Your task to perform on an android device: toggle translation in the chrome app Image 0: 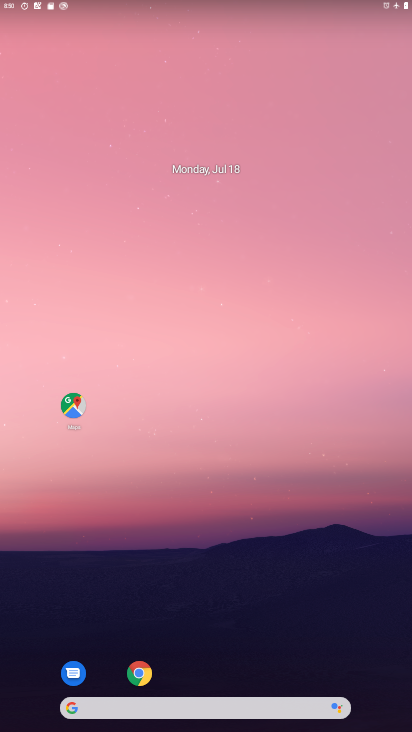
Step 0: click (72, 413)
Your task to perform on an android device: toggle translation in the chrome app Image 1: 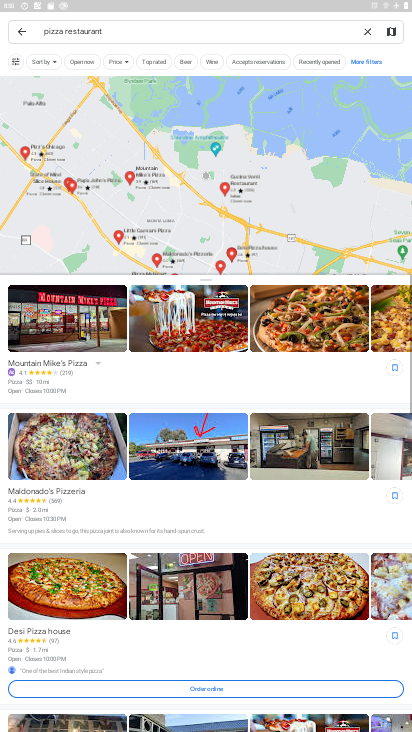
Step 1: press home button
Your task to perform on an android device: toggle translation in the chrome app Image 2: 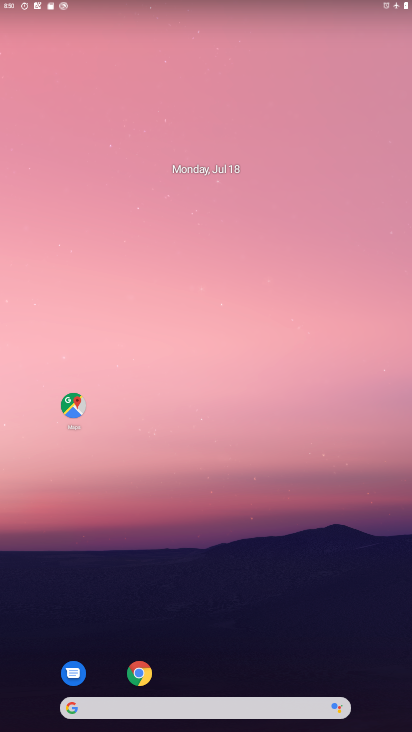
Step 2: click (133, 680)
Your task to perform on an android device: toggle translation in the chrome app Image 3: 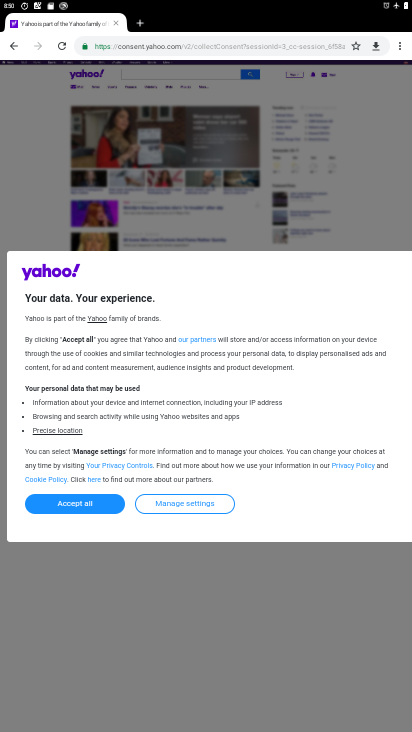
Step 3: click (133, 680)
Your task to perform on an android device: toggle translation in the chrome app Image 4: 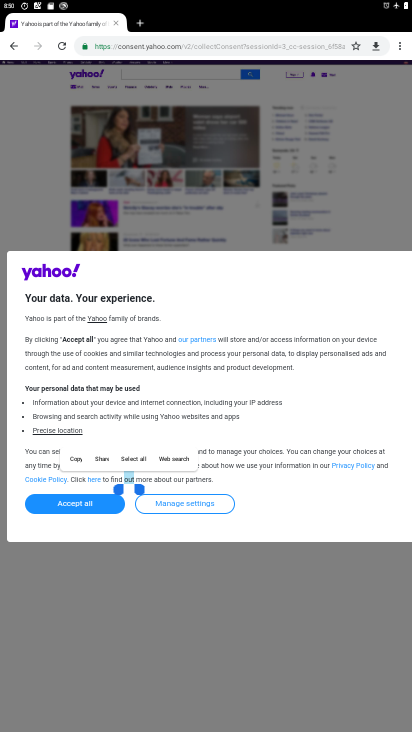
Step 4: click (401, 53)
Your task to perform on an android device: toggle translation in the chrome app Image 5: 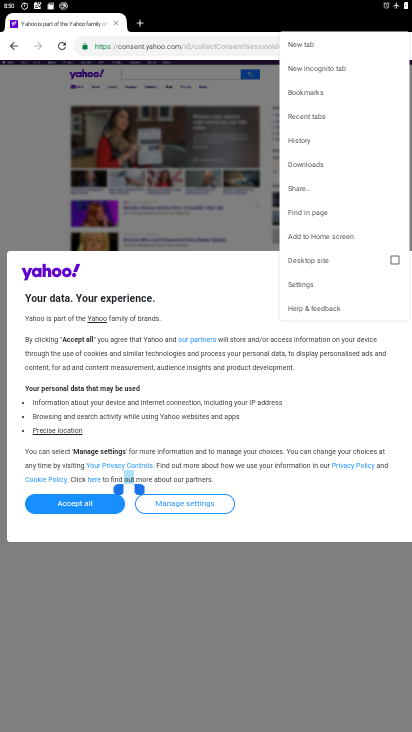
Step 5: click (307, 285)
Your task to perform on an android device: toggle translation in the chrome app Image 6: 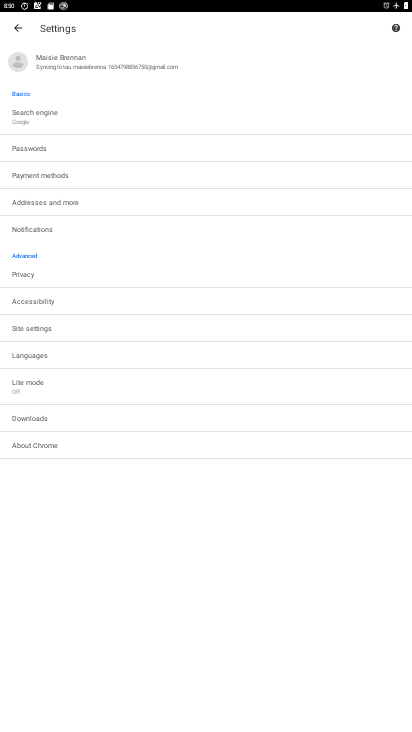
Step 6: click (46, 360)
Your task to perform on an android device: toggle translation in the chrome app Image 7: 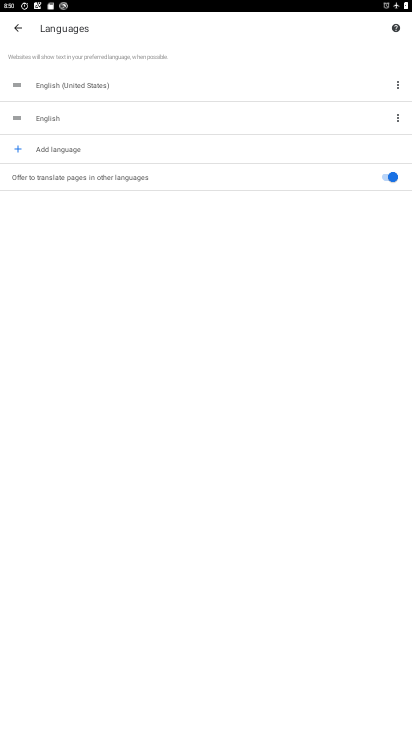
Step 7: click (382, 178)
Your task to perform on an android device: toggle translation in the chrome app Image 8: 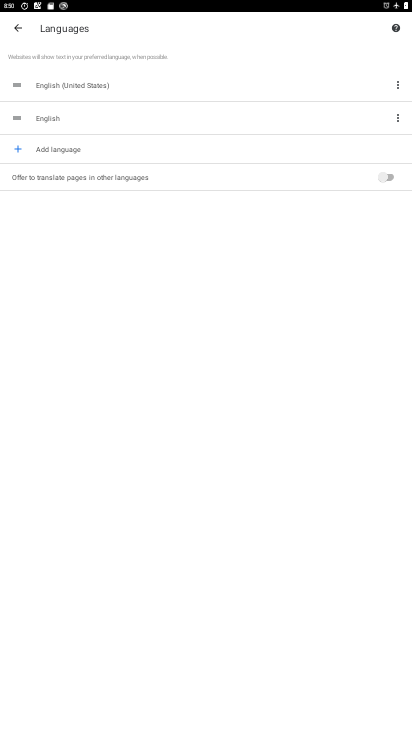
Step 8: task complete